Your task to perform on an android device: Go to location settings Image 0: 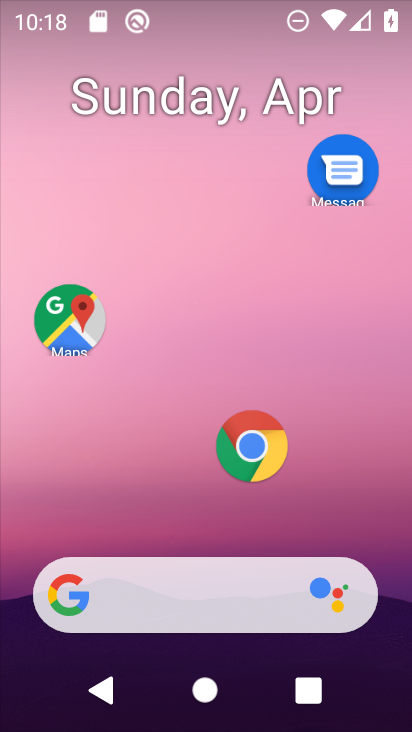
Step 0: drag from (207, 499) to (190, 95)
Your task to perform on an android device: Go to location settings Image 1: 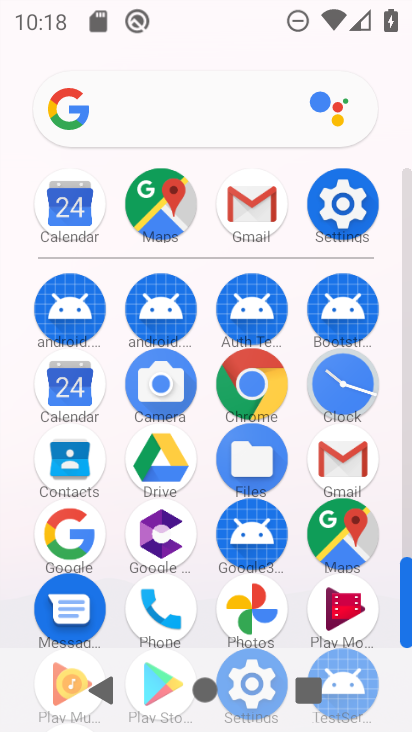
Step 1: click (342, 190)
Your task to perform on an android device: Go to location settings Image 2: 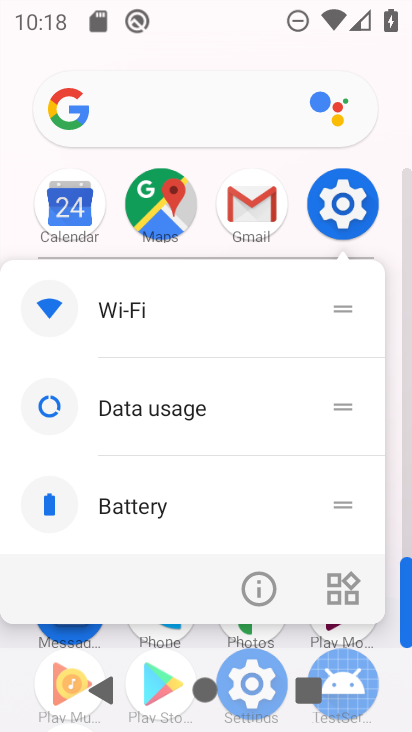
Step 2: click (263, 580)
Your task to perform on an android device: Go to location settings Image 3: 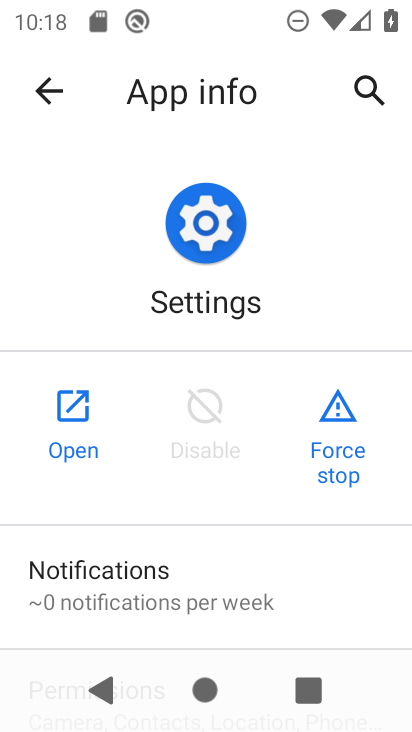
Step 3: click (79, 420)
Your task to perform on an android device: Go to location settings Image 4: 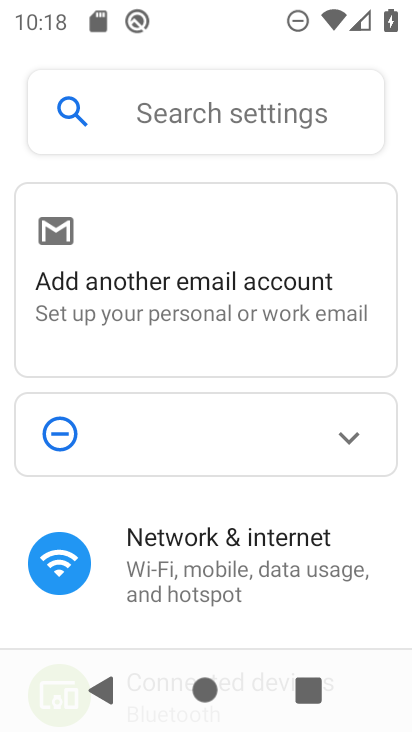
Step 4: drag from (204, 541) to (261, 134)
Your task to perform on an android device: Go to location settings Image 5: 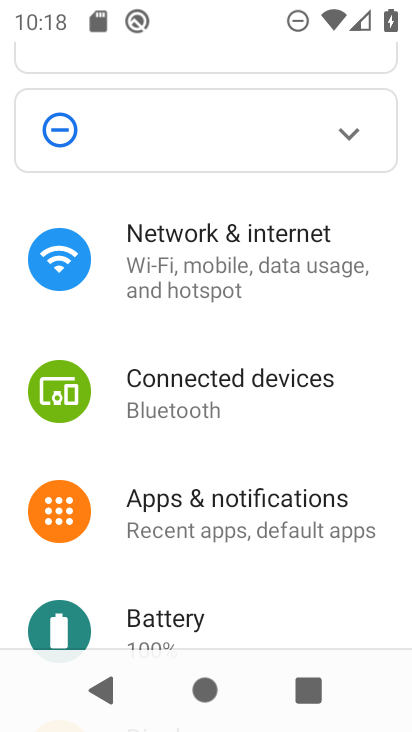
Step 5: drag from (224, 571) to (289, 198)
Your task to perform on an android device: Go to location settings Image 6: 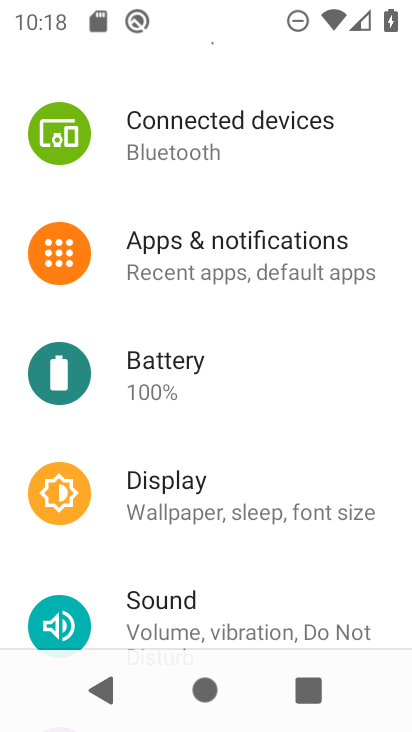
Step 6: drag from (222, 535) to (293, 145)
Your task to perform on an android device: Go to location settings Image 7: 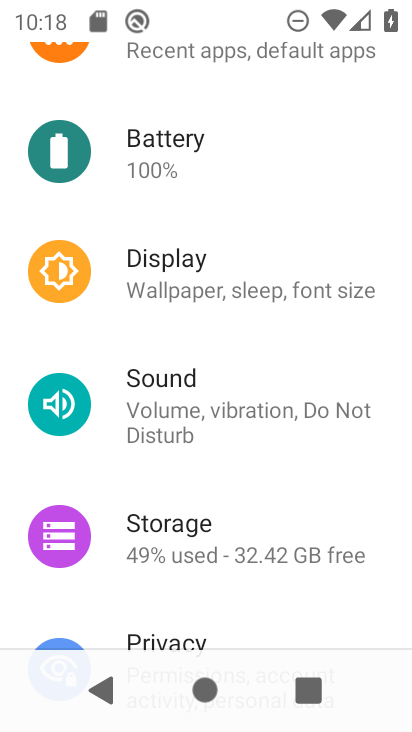
Step 7: drag from (232, 385) to (301, 0)
Your task to perform on an android device: Go to location settings Image 8: 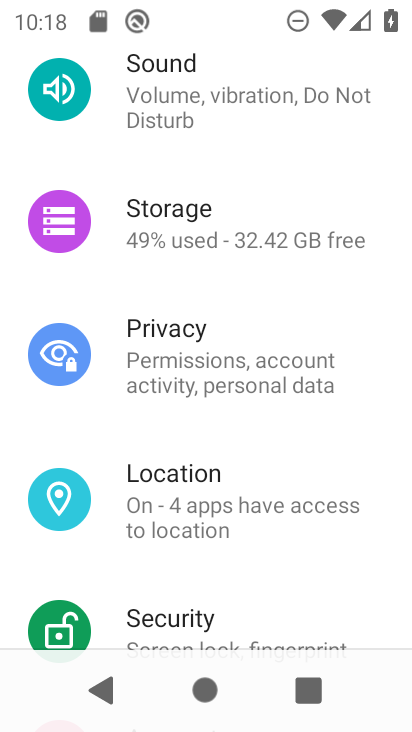
Step 8: click (210, 513)
Your task to perform on an android device: Go to location settings Image 9: 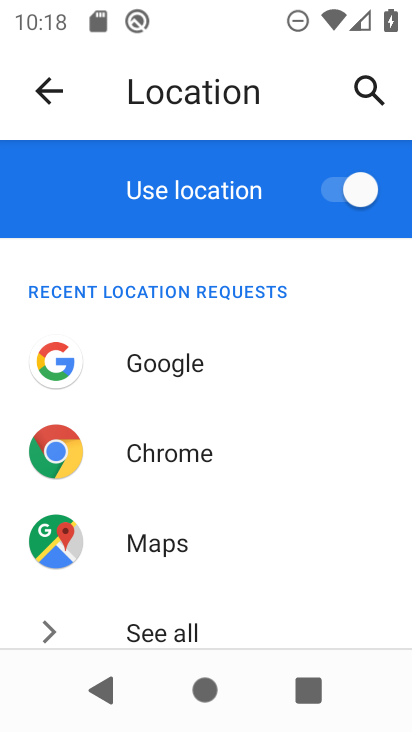
Step 9: task complete